Your task to perform on an android device: open app "Adobe Acrobat Reader: Edit PDF" (install if not already installed) and enter user name: "arthritis@inbox.com" and password: "scythes" Image 0: 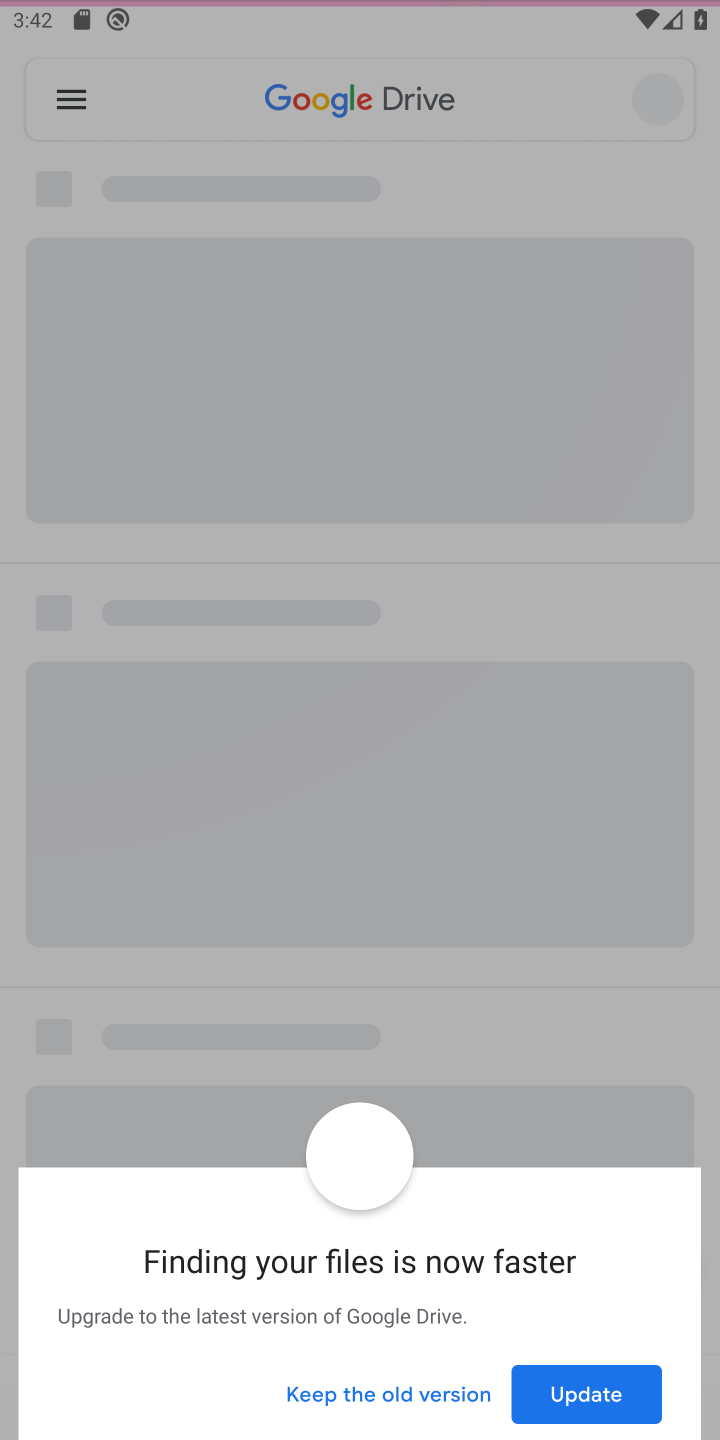
Step 0: click (317, 86)
Your task to perform on an android device: open app "Adobe Acrobat Reader: Edit PDF" (install if not already installed) and enter user name: "arthritis@inbox.com" and password: "scythes" Image 1: 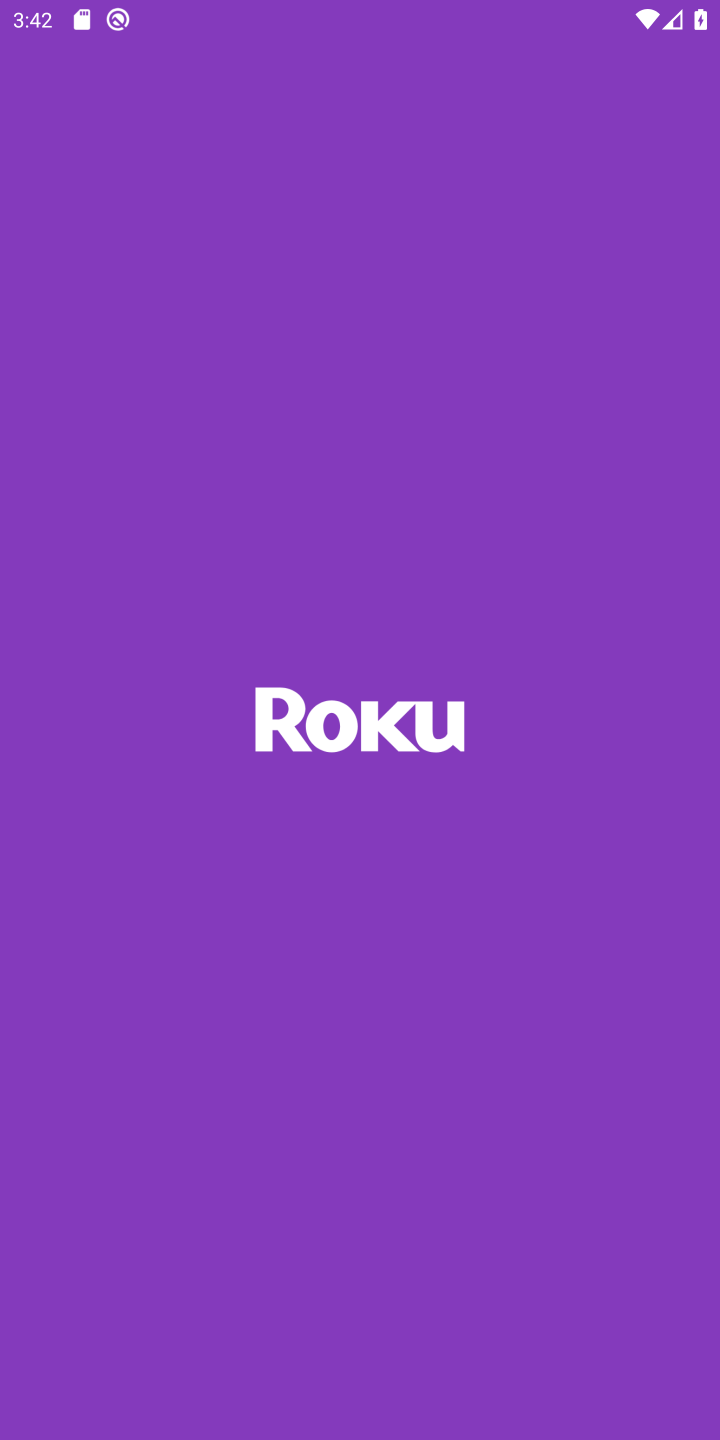
Step 1: drag from (350, 1089) to (363, 163)
Your task to perform on an android device: open app "Adobe Acrobat Reader: Edit PDF" (install if not already installed) and enter user name: "arthritis@inbox.com" and password: "scythes" Image 2: 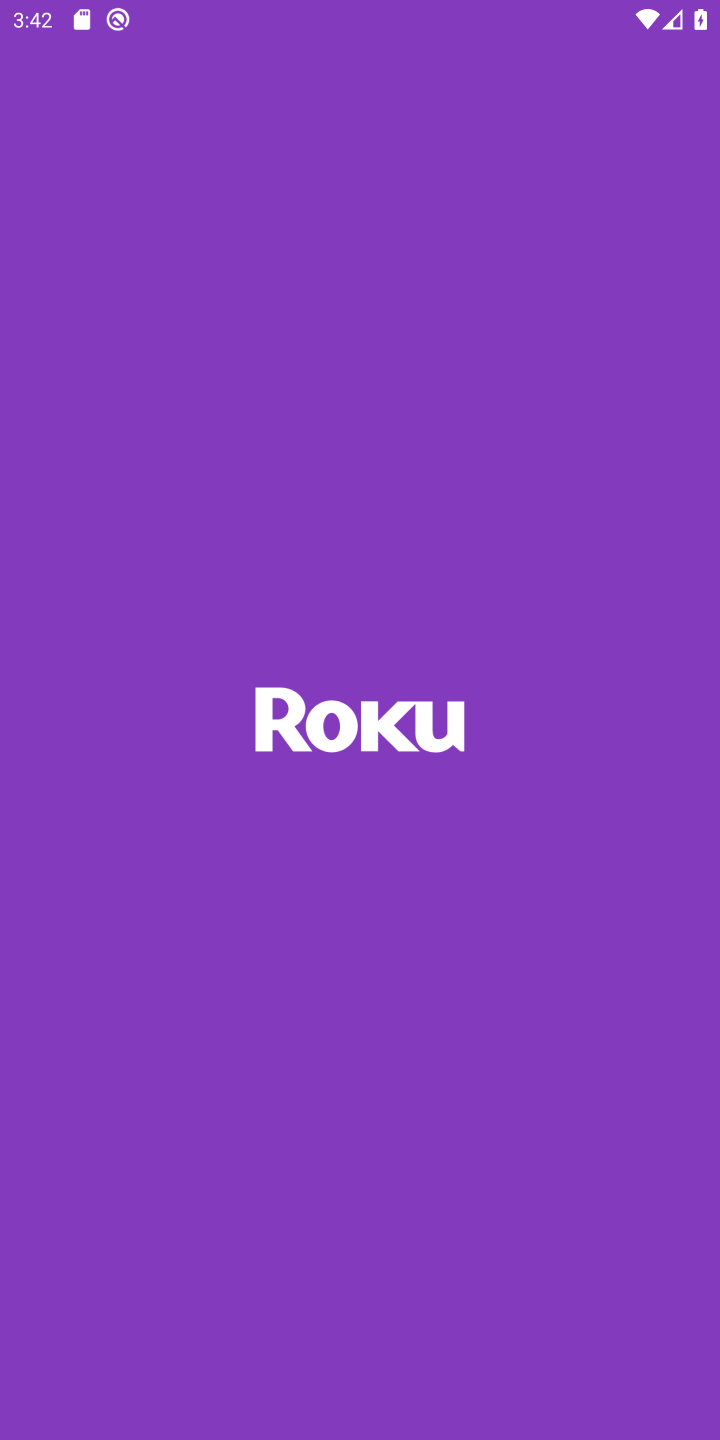
Step 2: press home button
Your task to perform on an android device: open app "Adobe Acrobat Reader: Edit PDF" (install if not already installed) and enter user name: "arthritis@inbox.com" and password: "scythes" Image 3: 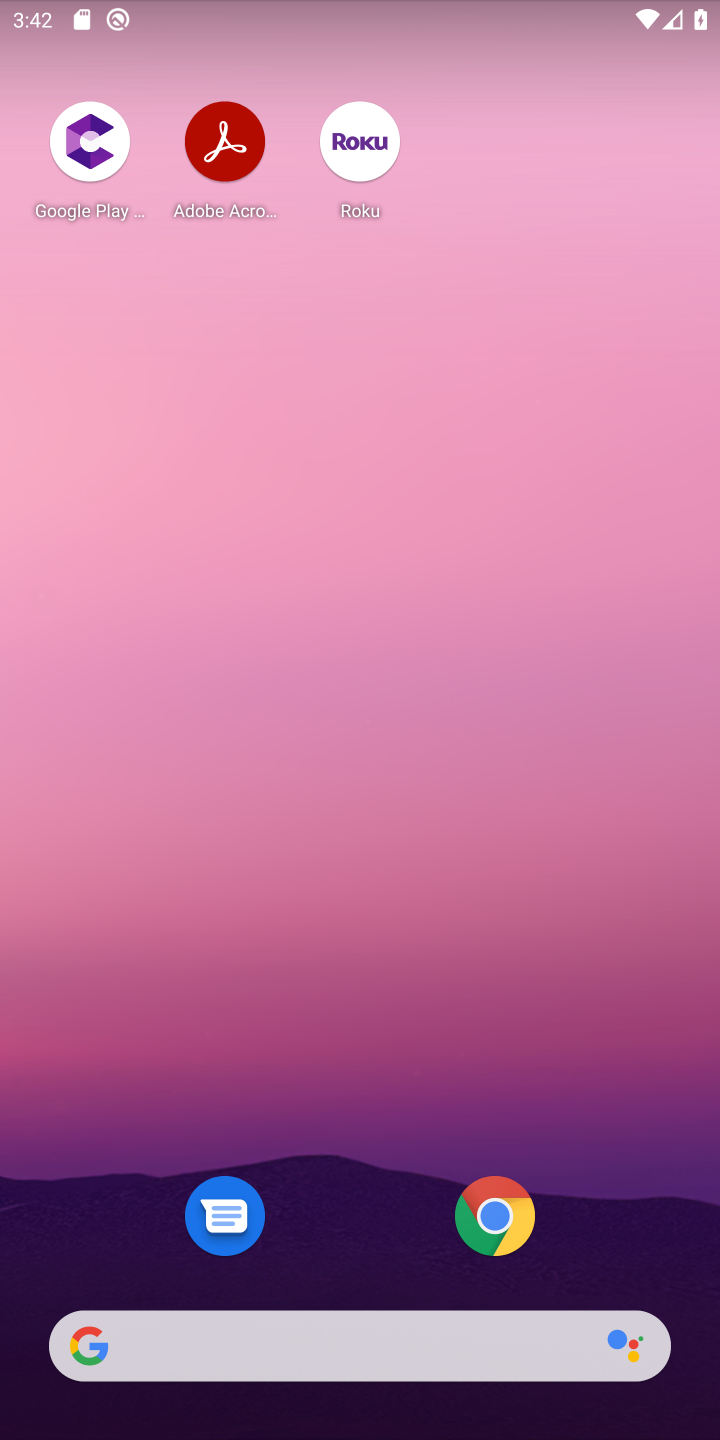
Step 3: drag from (370, 1145) to (564, 0)
Your task to perform on an android device: open app "Adobe Acrobat Reader: Edit PDF" (install if not already installed) and enter user name: "arthritis@inbox.com" and password: "scythes" Image 4: 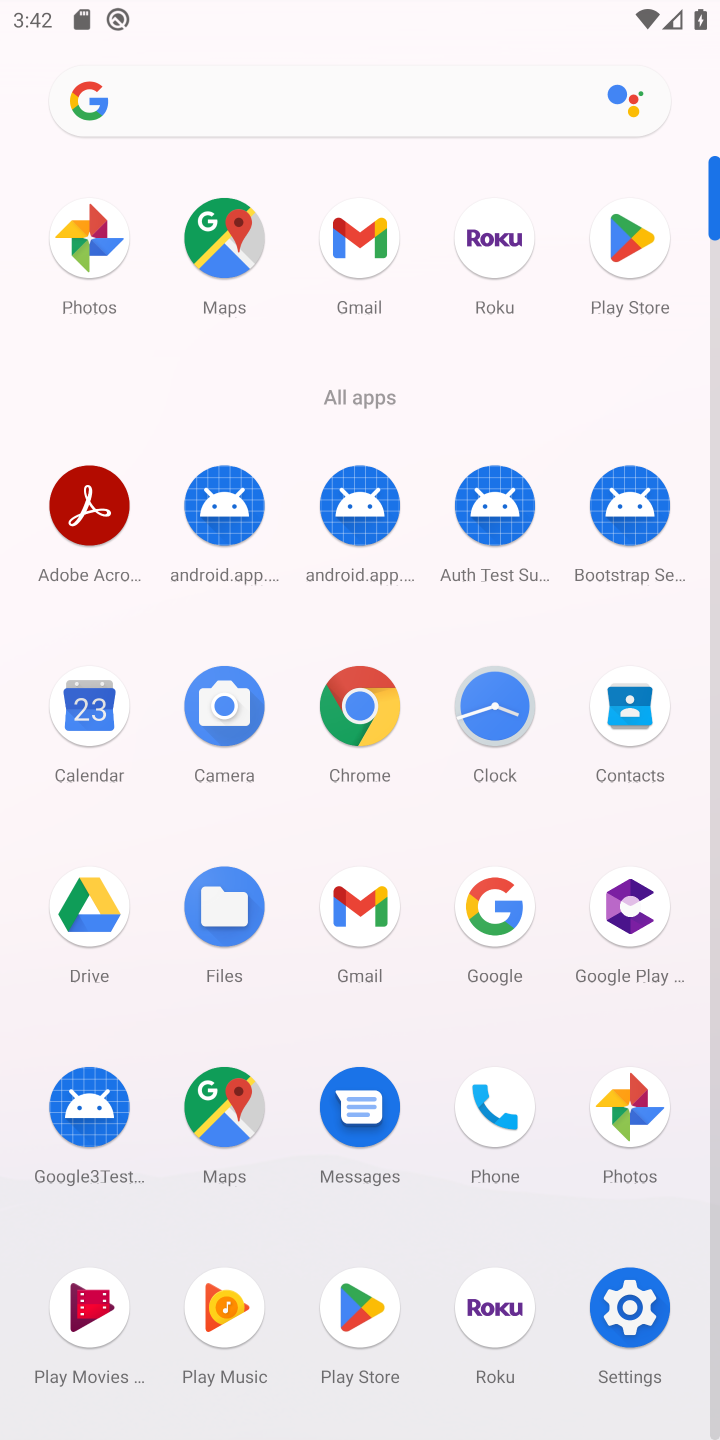
Step 4: click (643, 257)
Your task to perform on an android device: open app "Adobe Acrobat Reader: Edit PDF" (install if not already installed) and enter user name: "arthritis@inbox.com" and password: "scythes" Image 5: 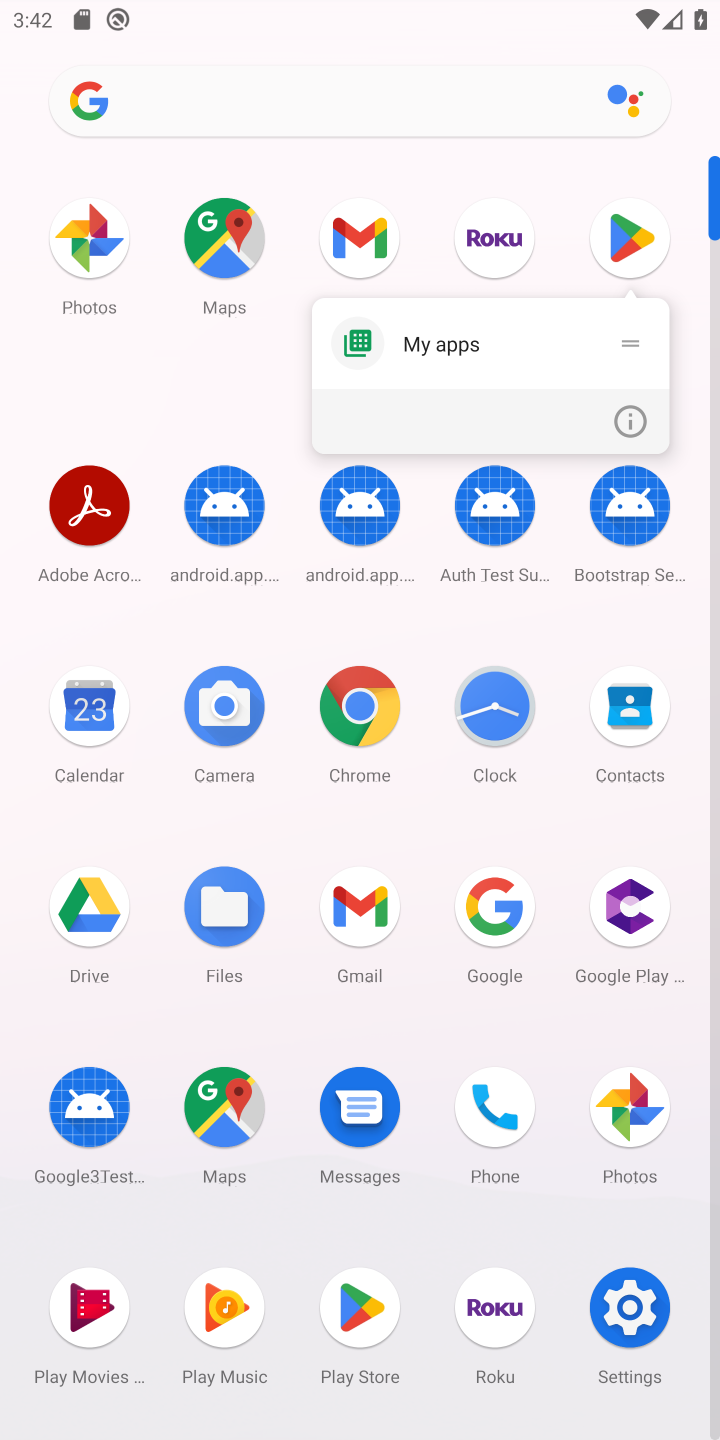
Step 5: click (625, 227)
Your task to perform on an android device: open app "Adobe Acrobat Reader: Edit PDF" (install if not already installed) and enter user name: "arthritis@inbox.com" and password: "scythes" Image 6: 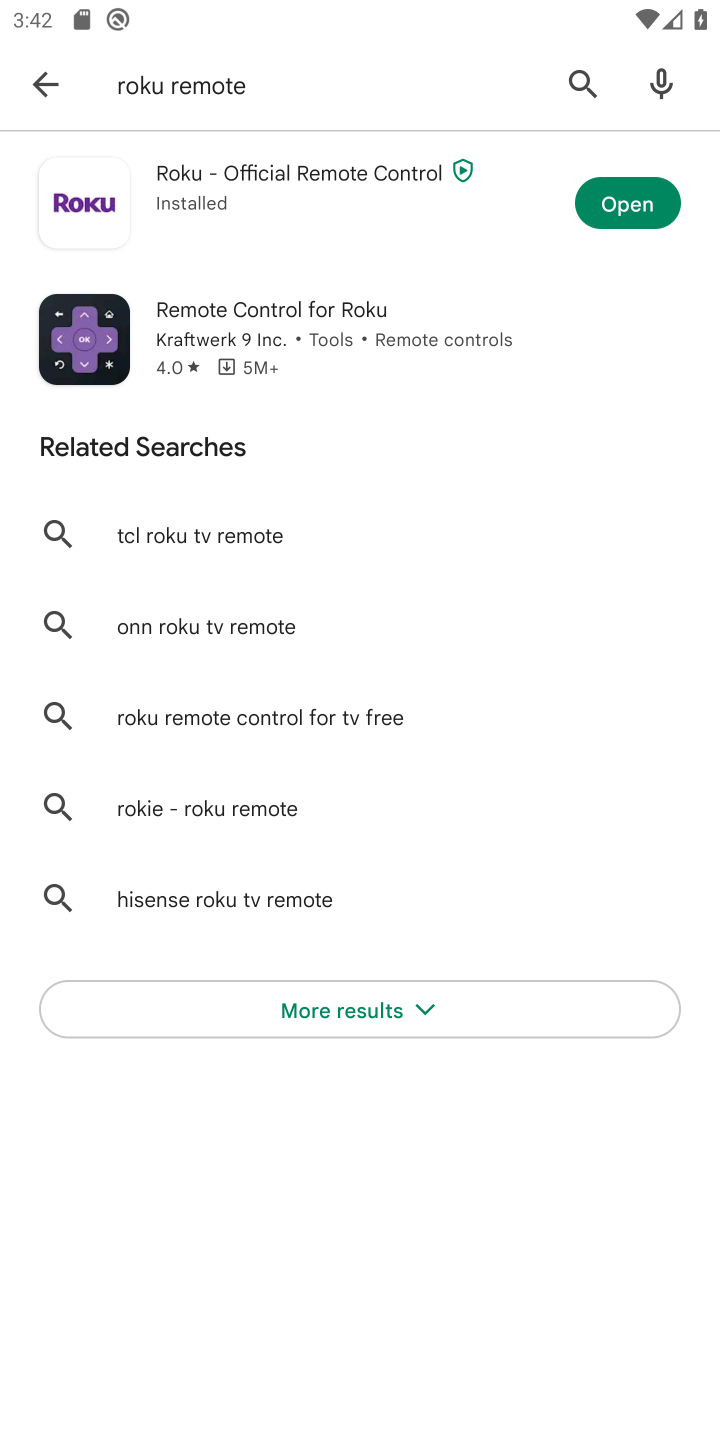
Step 6: click (250, 68)
Your task to perform on an android device: open app "Adobe Acrobat Reader: Edit PDF" (install if not already installed) and enter user name: "arthritis@inbox.com" and password: "scythes" Image 7: 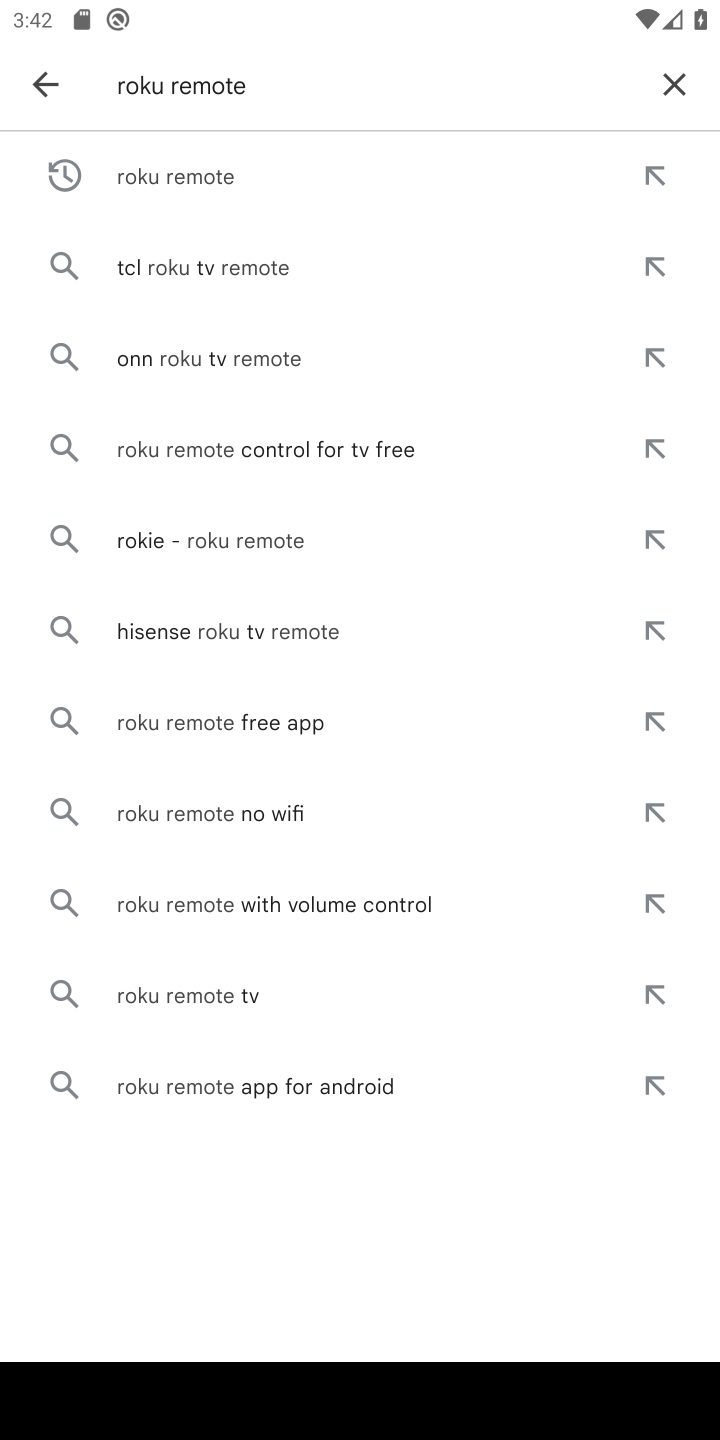
Step 7: click (690, 73)
Your task to perform on an android device: open app "Adobe Acrobat Reader: Edit PDF" (install if not already installed) and enter user name: "arthritis@inbox.com" and password: "scythes" Image 8: 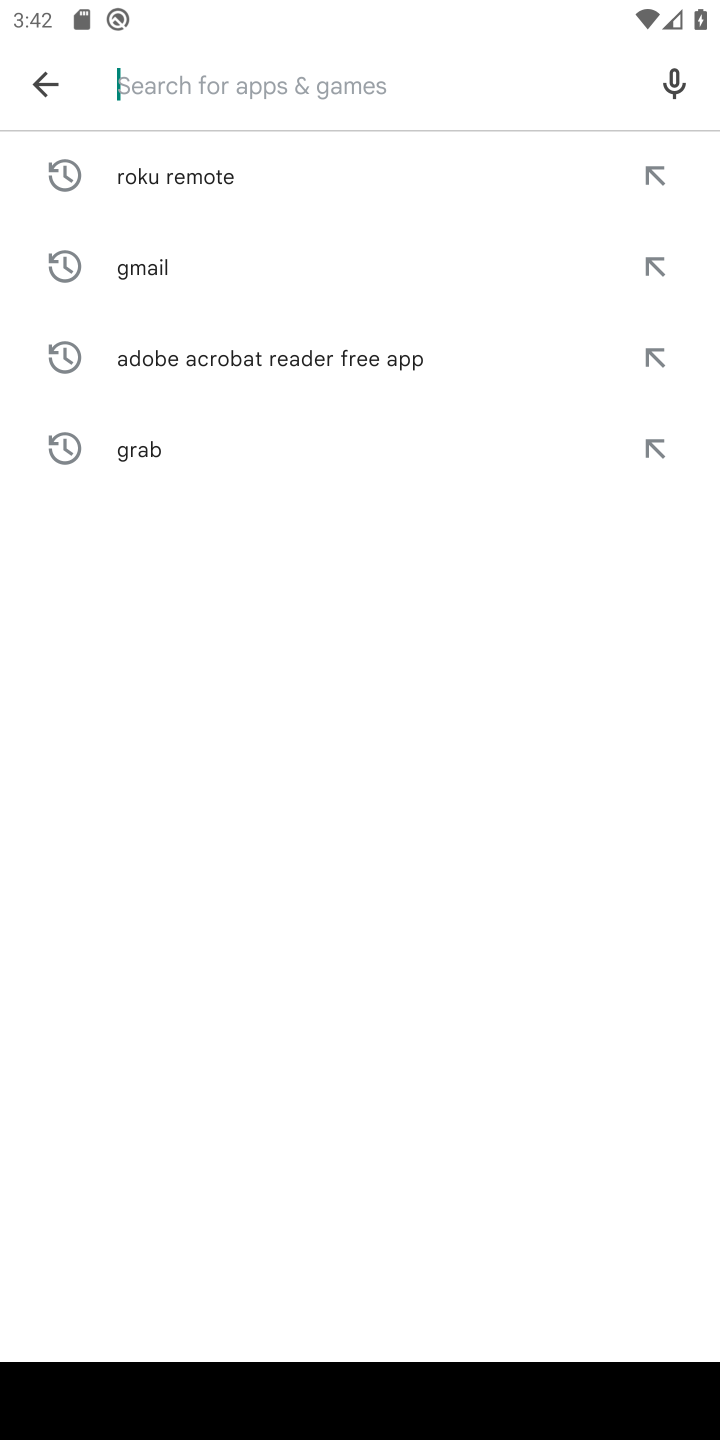
Step 8: type "Adobe Acrobat Reader"
Your task to perform on an android device: open app "Adobe Acrobat Reader: Edit PDF" (install if not already installed) and enter user name: "arthritis@inbox.com" and password: "scythes" Image 9: 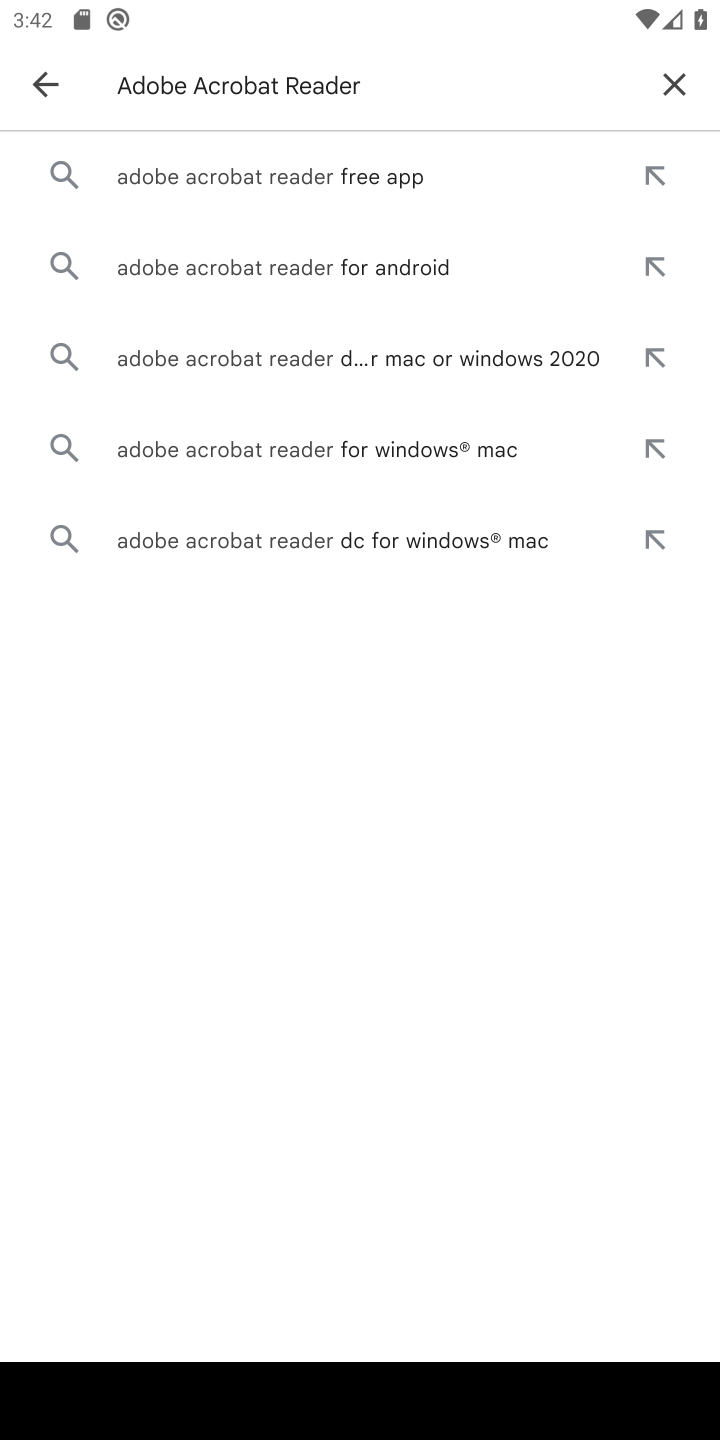
Step 9: click (352, 183)
Your task to perform on an android device: open app "Adobe Acrobat Reader: Edit PDF" (install if not already installed) and enter user name: "arthritis@inbox.com" and password: "scythes" Image 10: 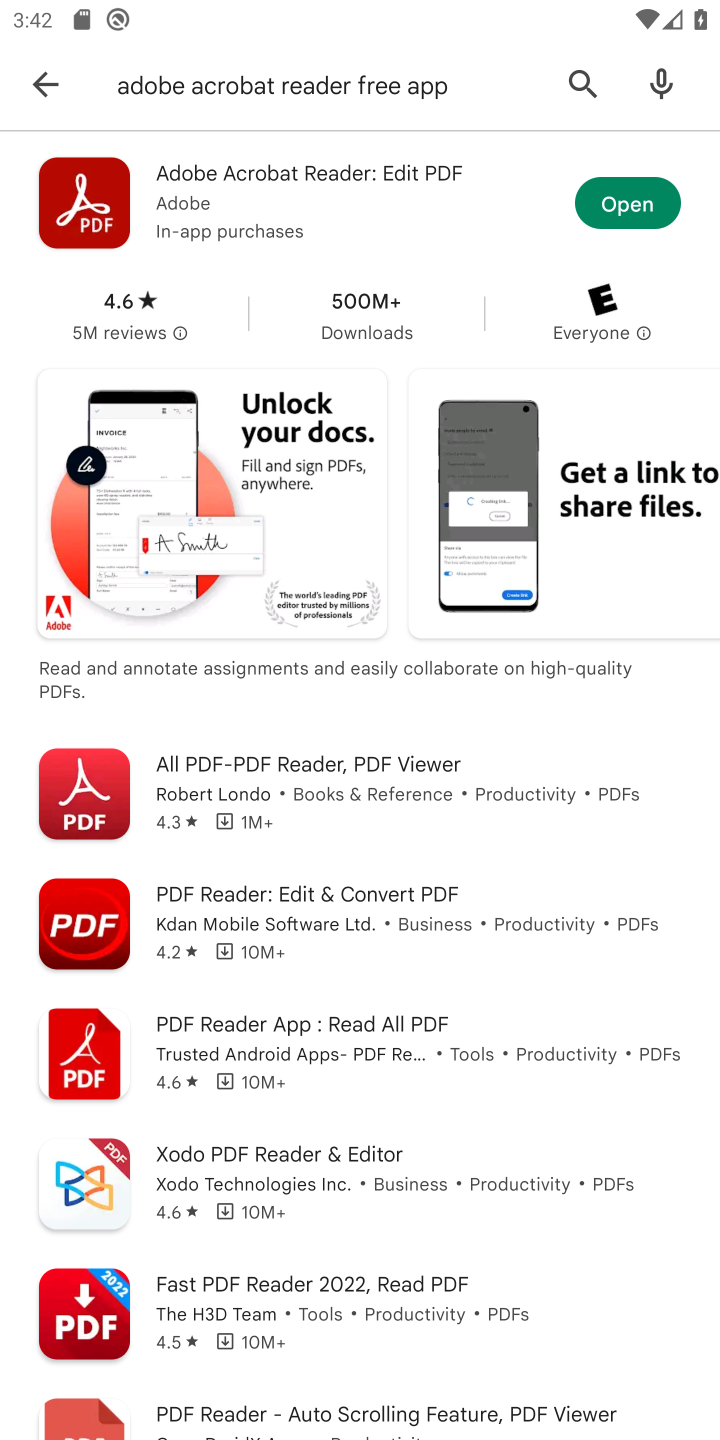
Step 10: click (637, 199)
Your task to perform on an android device: open app "Adobe Acrobat Reader: Edit PDF" (install if not already installed) and enter user name: "arthritis@inbox.com" and password: "scythes" Image 11: 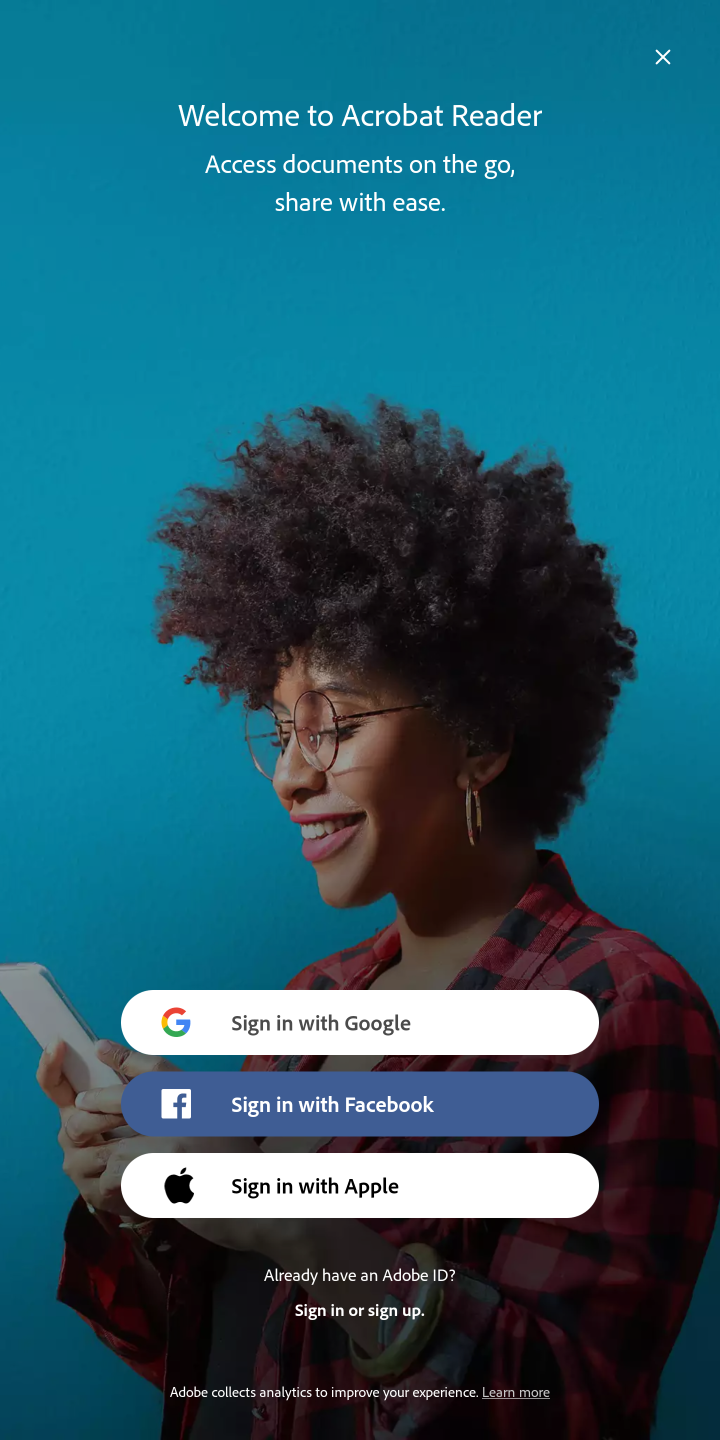
Step 11: click (346, 1319)
Your task to perform on an android device: open app "Adobe Acrobat Reader: Edit PDF" (install if not already installed) and enter user name: "arthritis@inbox.com" and password: "scythes" Image 12: 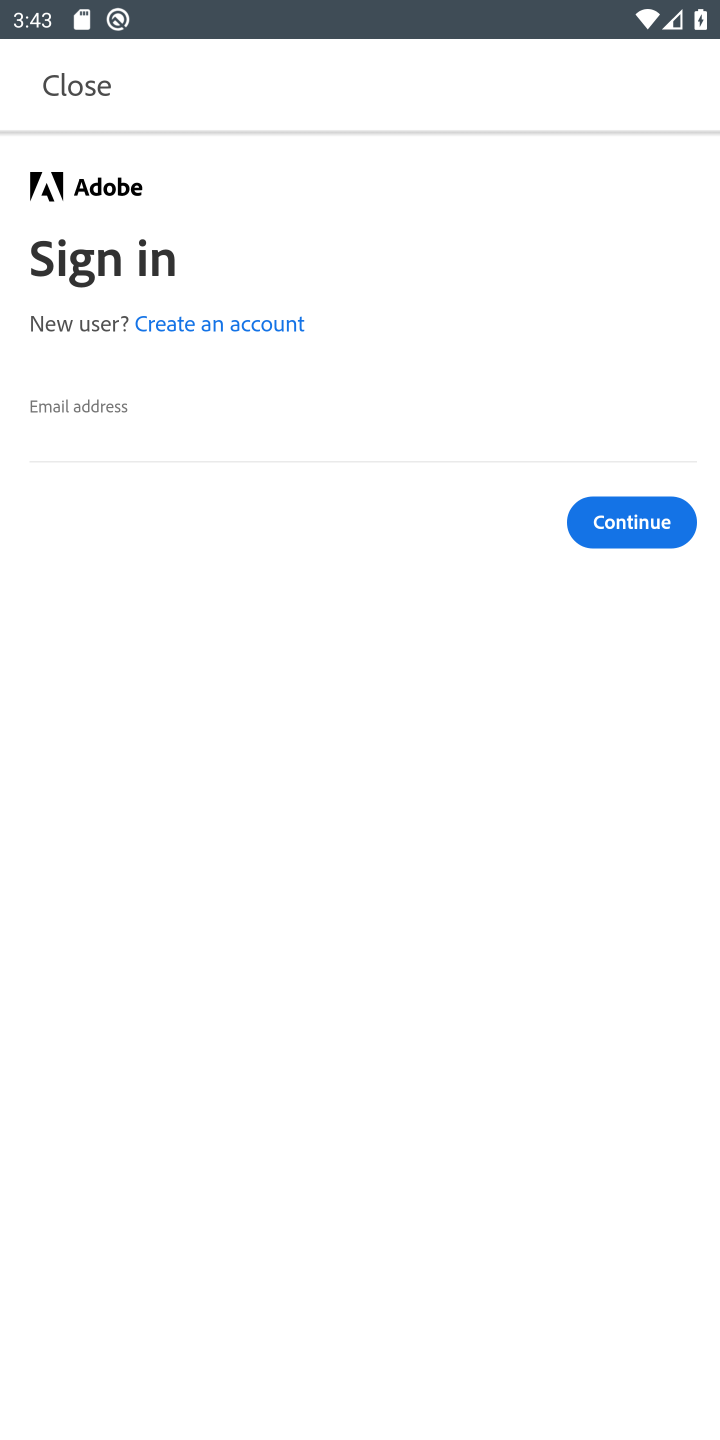
Step 12: click (194, 444)
Your task to perform on an android device: open app "Adobe Acrobat Reader: Edit PDF" (install if not already installed) and enter user name: "arthritis@inbox.com" and password: "scythes" Image 13: 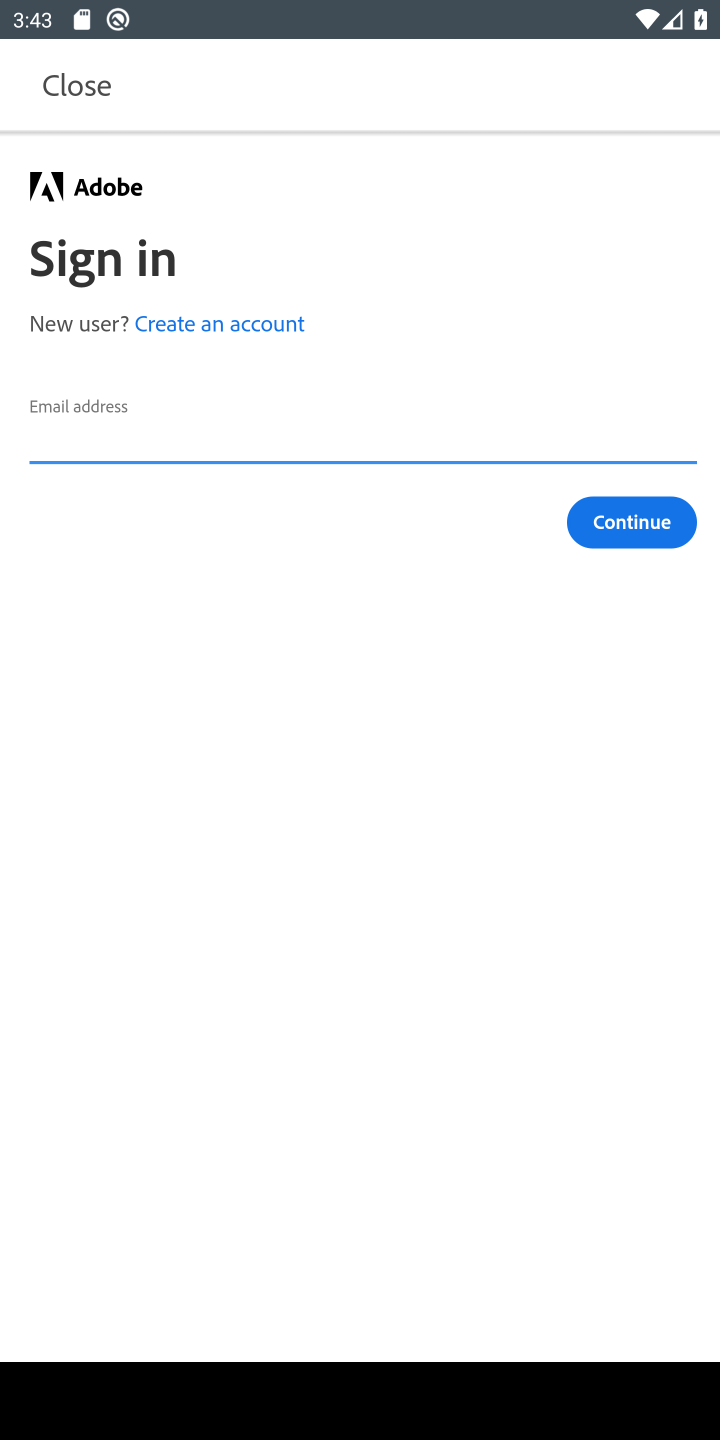
Step 13: type "arthritis@inbox.com"
Your task to perform on an android device: open app "Adobe Acrobat Reader: Edit PDF" (install if not already installed) and enter user name: "arthritis@inbox.com" and password: "scythes" Image 14: 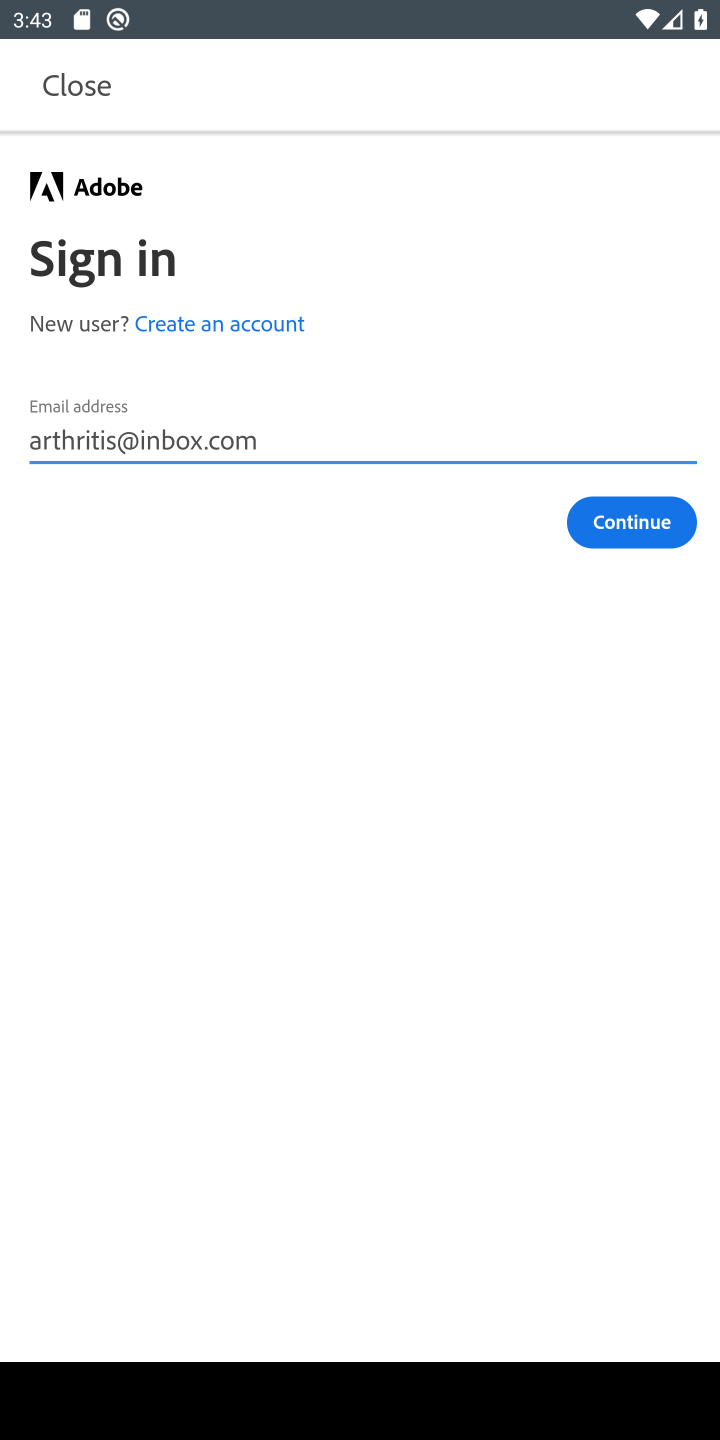
Step 14: click (627, 532)
Your task to perform on an android device: open app "Adobe Acrobat Reader: Edit PDF" (install if not already installed) and enter user name: "arthritis@inbox.com" and password: "scythes" Image 15: 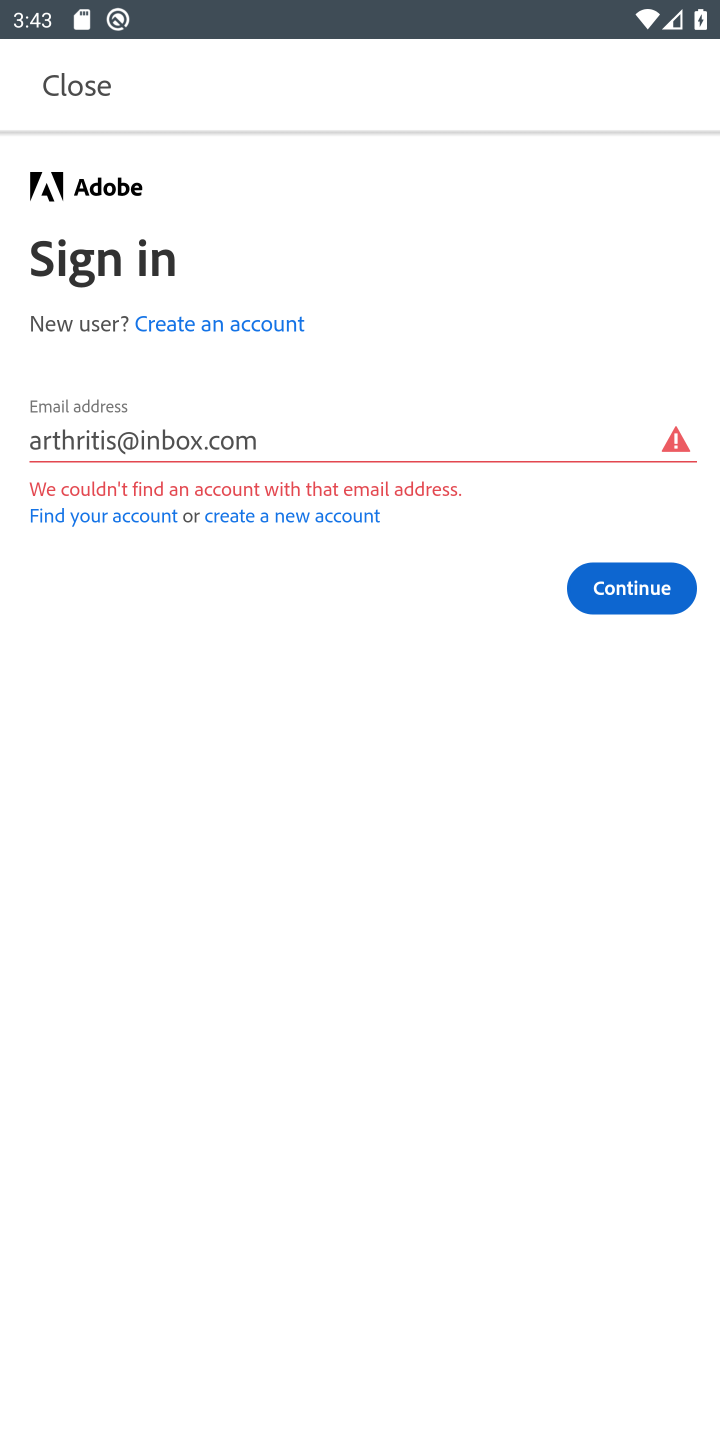
Step 15: task complete